Your task to perform on an android device: Open the web browser Image 0: 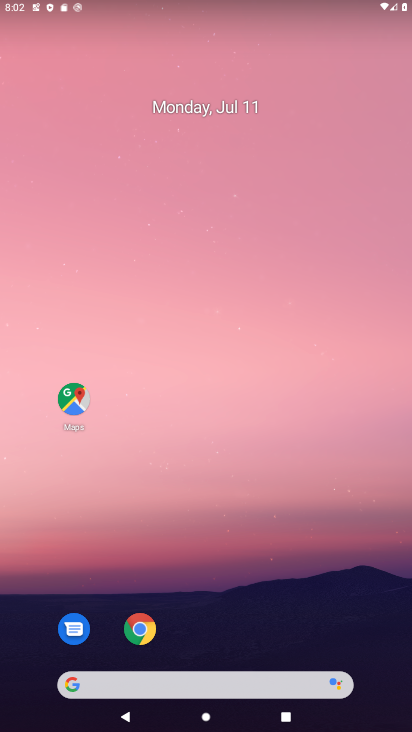
Step 0: drag from (232, 644) to (267, 141)
Your task to perform on an android device: Open the web browser Image 1: 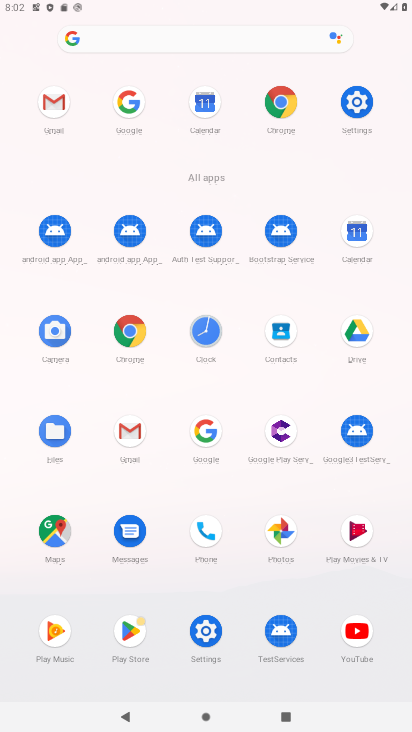
Step 1: click (203, 432)
Your task to perform on an android device: Open the web browser Image 2: 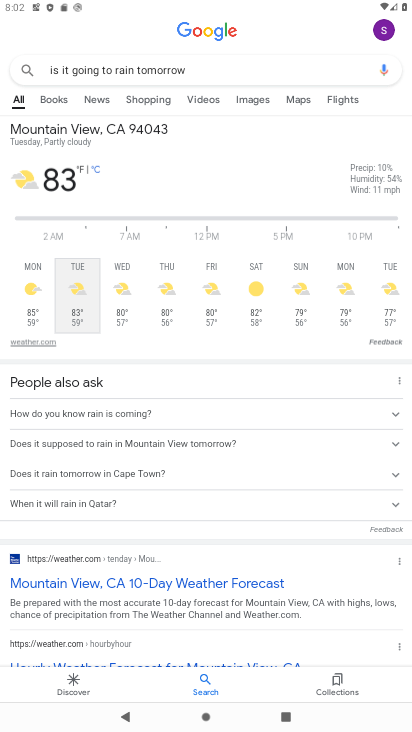
Step 2: task complete